Your task to perform on an android device: see creations saved in the google photos Image 0: 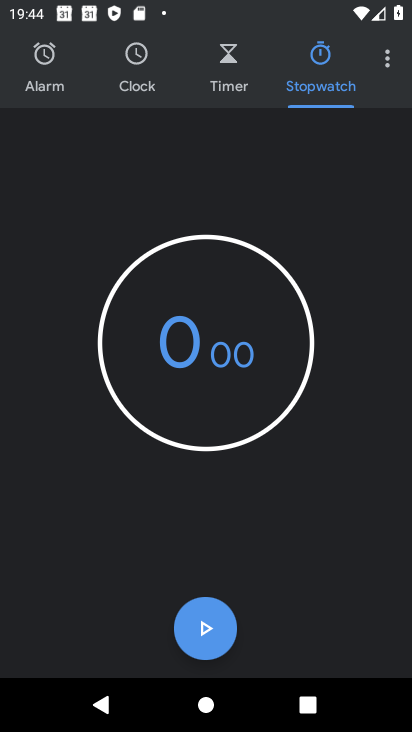
Step 0: press home button
Your task to perform on an android device: see creations saved in the google photos Image 1: 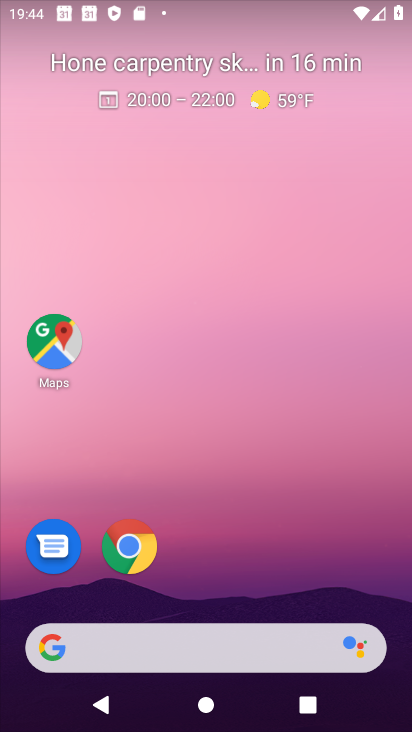
Step 1: drag from (348, 548) to (298, 213)
Your task to perform on an android device: see creations saved in the google photos Image 2: 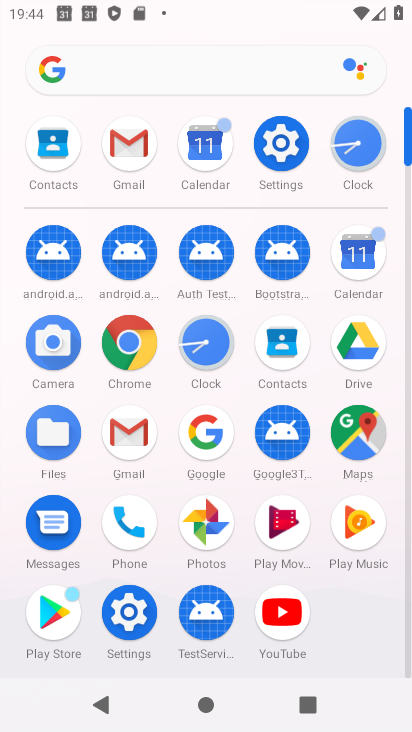
Step 2: click (214, 519)
Your task to perform on an android device: see creations saved in the google photos Image 3: 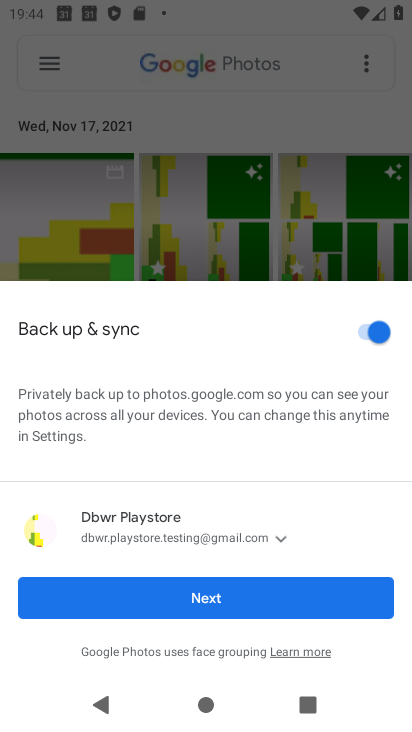
Step 3: click (248, 590)
Your task to perform on an android device: see creations saved in the google photos Image 4: 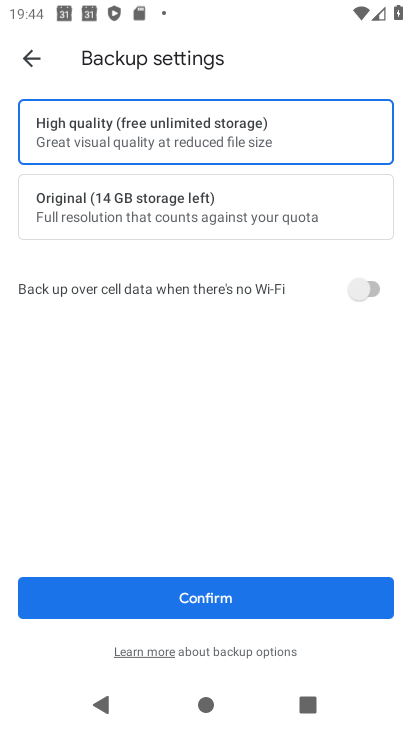
Step 4: click (248, 590)
Your task to perform on an android device: see creations saved in the google photos Image 5: 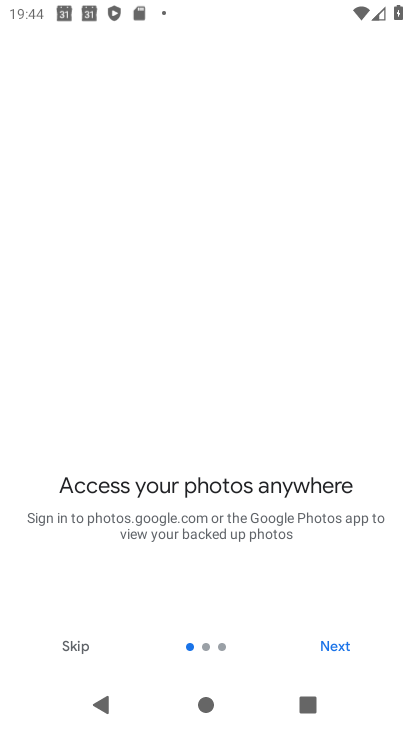
Step 5: click (80, 643)
Your task to perform on an android device: see creations saved in the google photos Image 6: 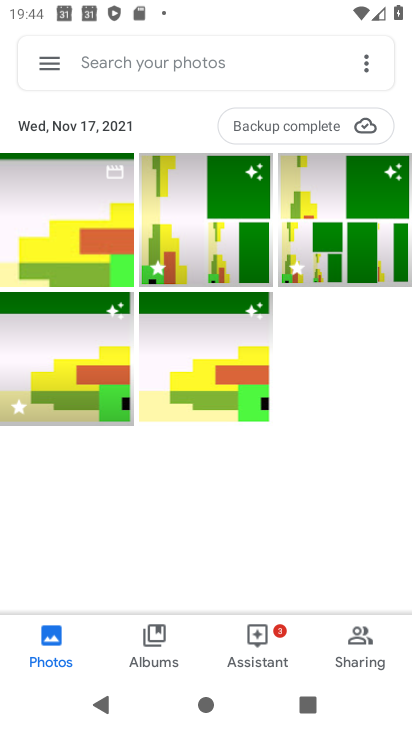
Step 6: click (179, 47)
Your task to perform on an android device: see creations saved in the google photos Image 7: 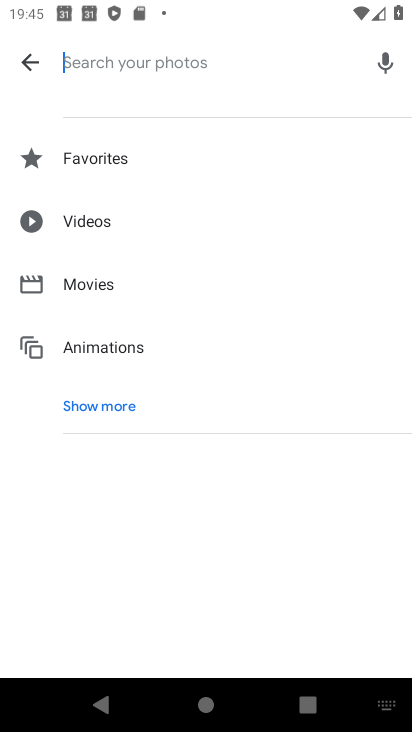
Step 7: click (100, 404)
Your task to perform on an android device: see creations saved in the google photos Image 8: 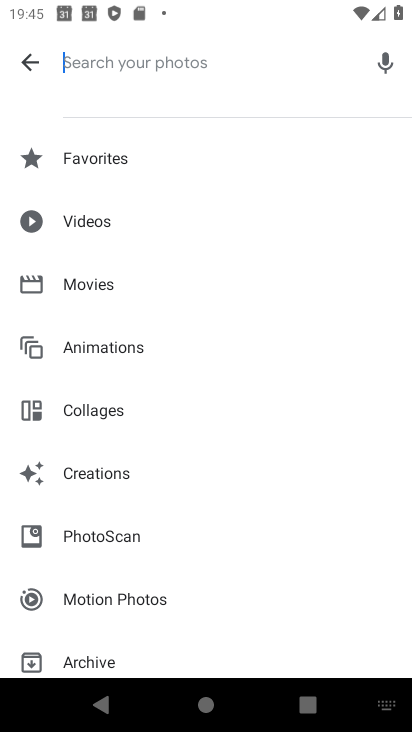
Step 8: click (104, 480)
Your task to perform on an android device: see creations saved in the google photos Image 9: 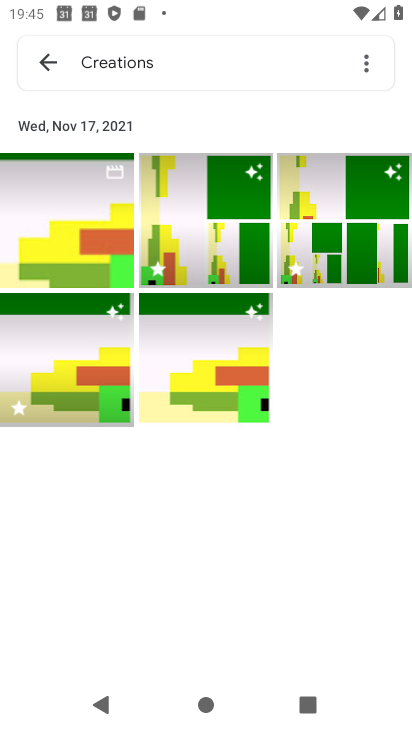
Step 9: task complete